Your task to perform on an android device: turn on notifications settings in the gmail app Image 0: 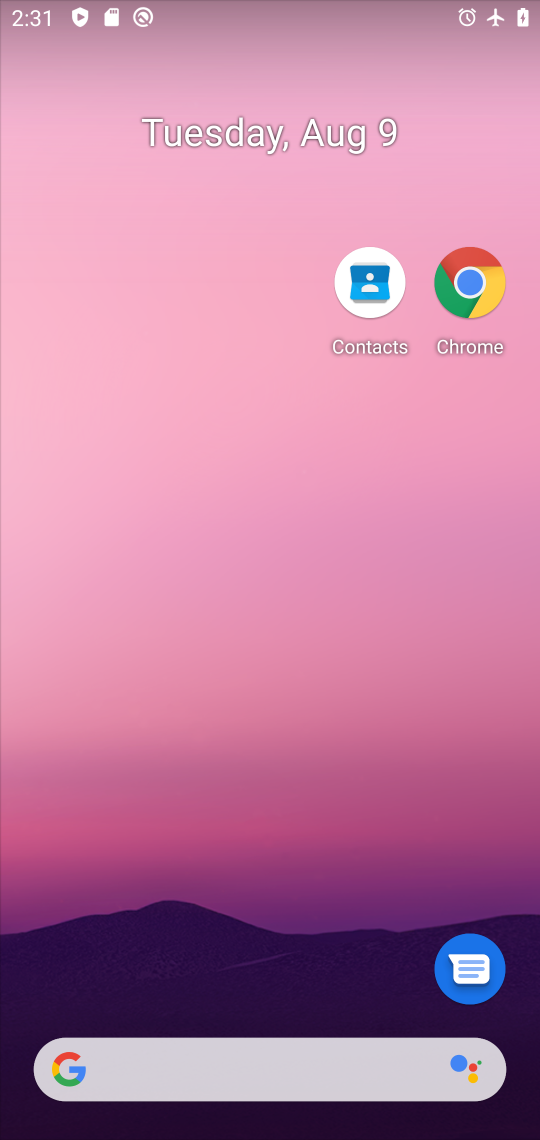
Step 0: drag from (345, 947) to (457, 47)
Your task to perform on an android device: turn on notifications settings in the gmail app Image 1: 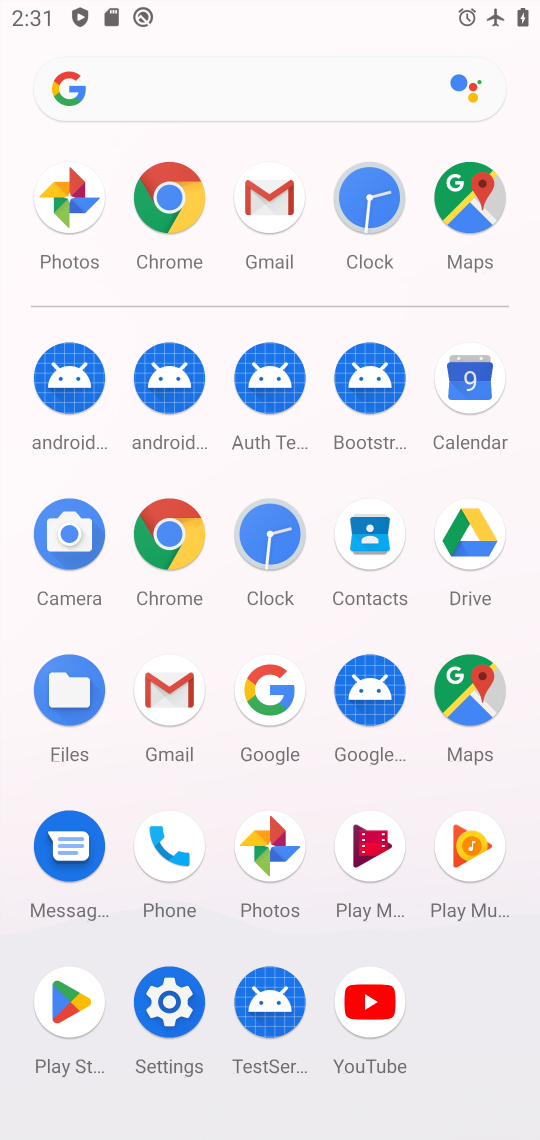
Step 1: click (133, 687)
Your task to perform on an android device: turn on notifications settings in the gmail app Image 2: 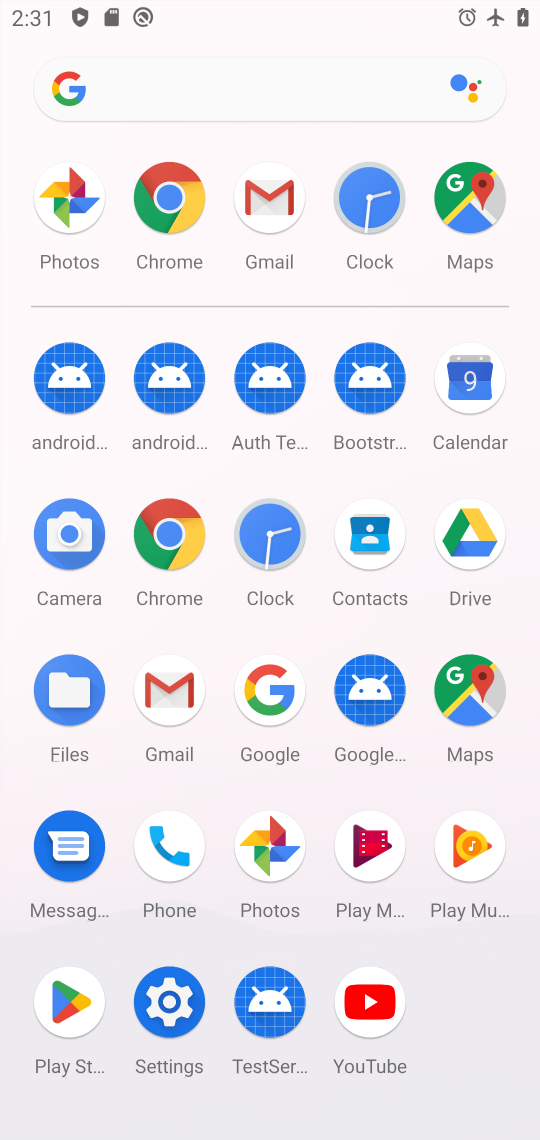
Step 2: click (143, 691)
Your task to perform on an android device: turn on notifications settings in the gmail app Image 3: 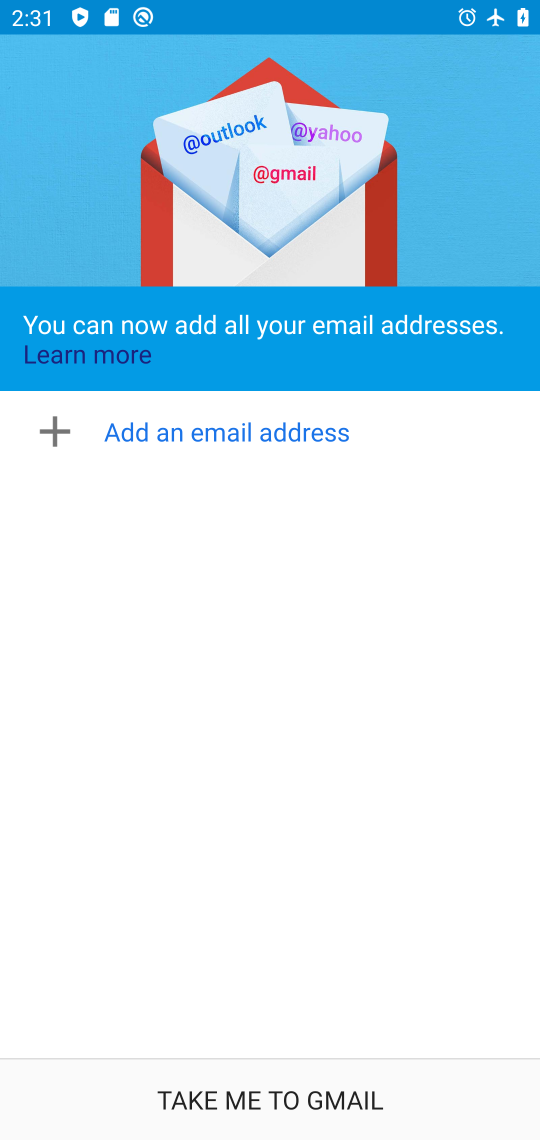
Step 3: press home button
Your task to perform on an android device: turn on notifications settings in the gmail app Image 4: 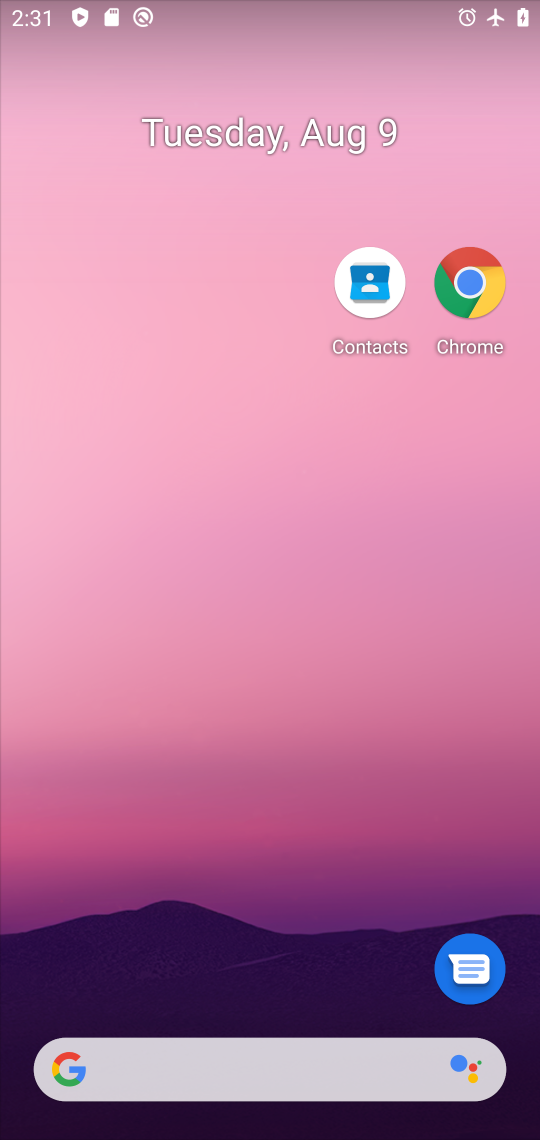
Step 4: drag from (280, 991) to (284, 289)
Your task to perform on an android device: turn on notifications settings in the gmail app Image 5: 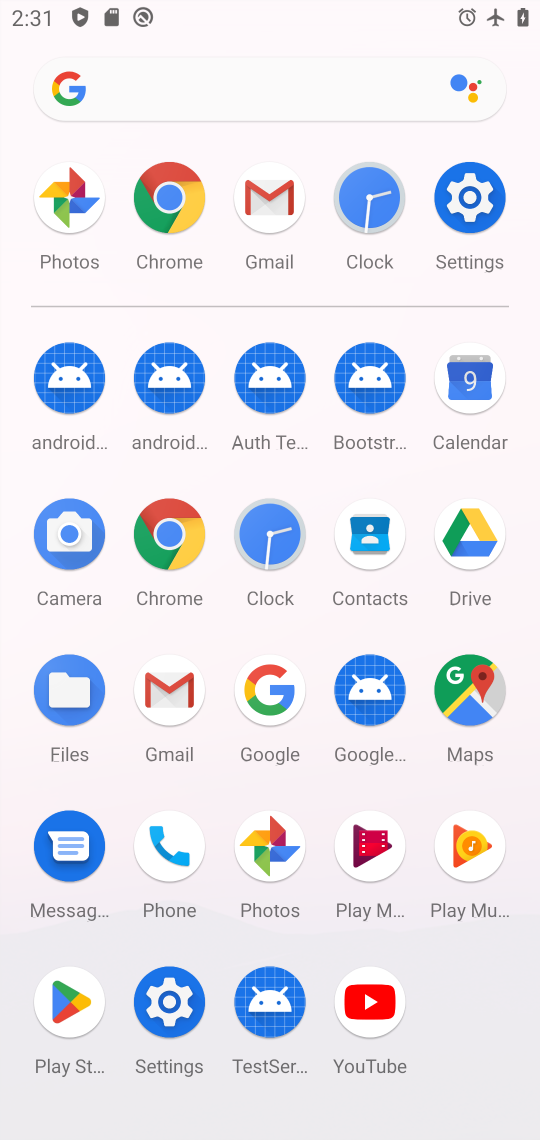
Step 5: click (171, 687)
Your task to perform on an android device: turn on notifications settings in the gmail app Image 6: 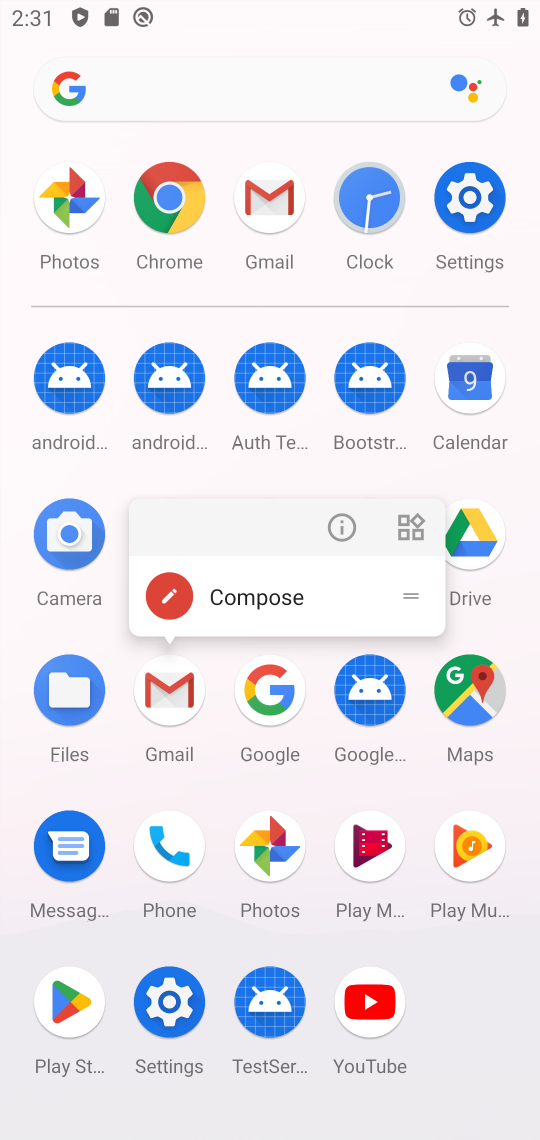
Step 6: click (339, 516)
Your task to perform on an android device: turn on notifications settings in the gmail app Image 7: 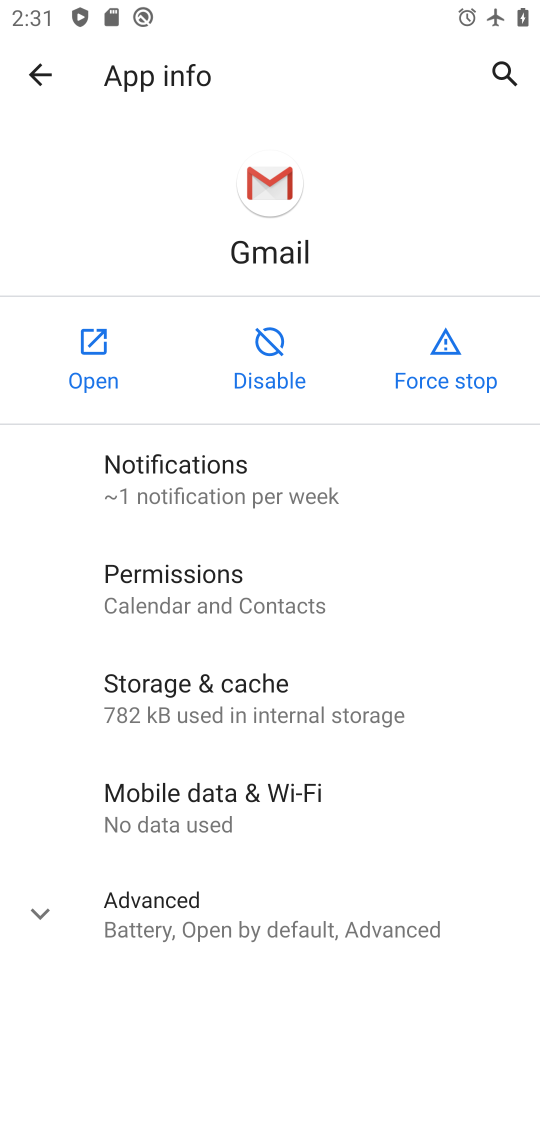
Step 7: click (123, 364)
Your task to perform on an android device: turn on notifications settings in the gmail app Image 8: 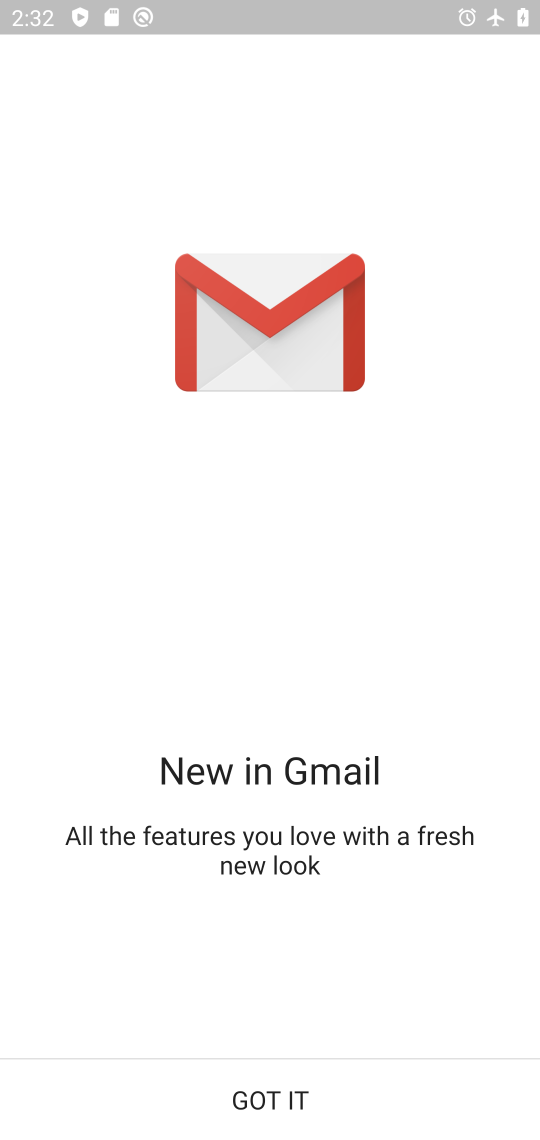
Step 8: click (287, 1074)
Your task to perform on an android device: turn on notifications settings in the gmail app Image 9: 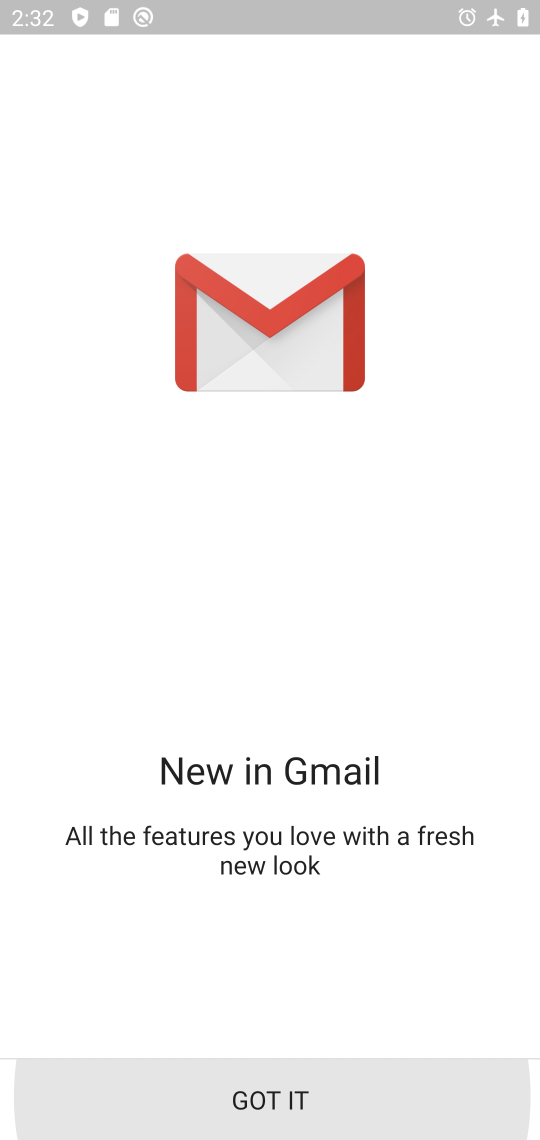
Step 9: click (288, 1090)
Your task to perform on an android device: turn on notifications settings in the gmail app Image 10: 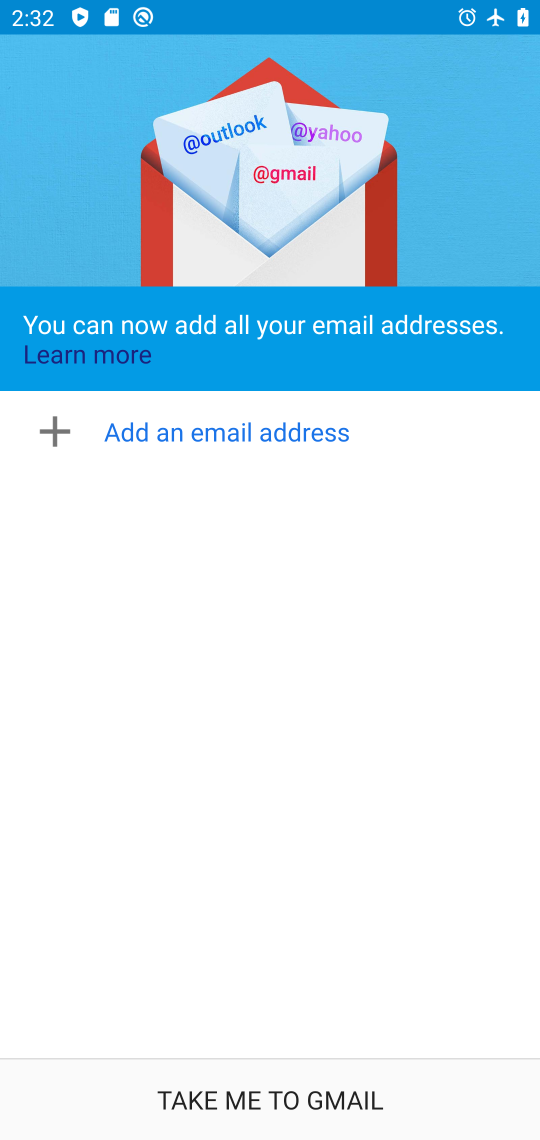
Step 10: click (326, 1083)
Your task to perform on an android device: turn on notifications settings in the gmail app Image 11: 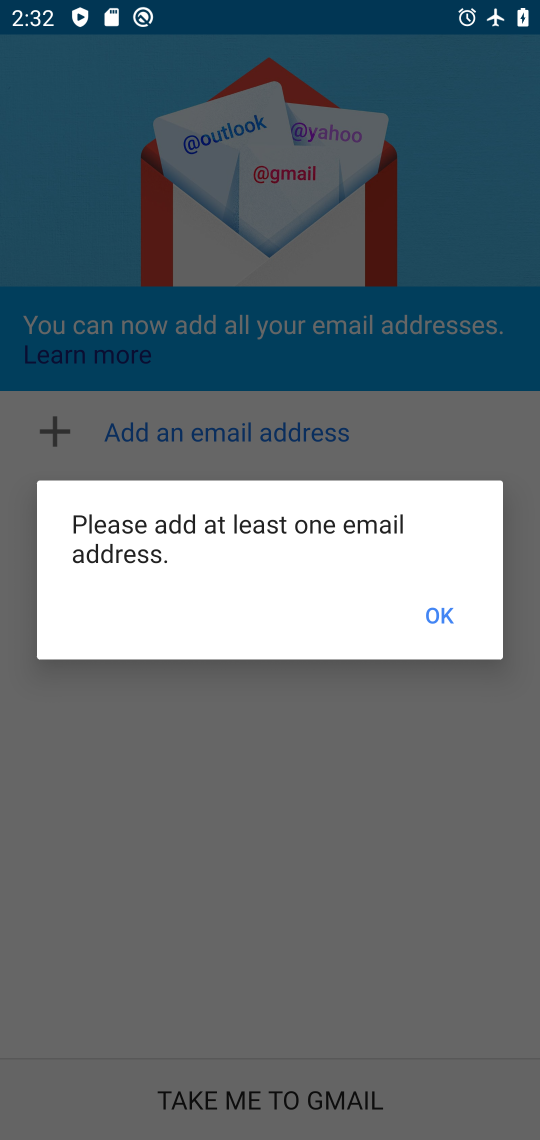
Step 11: task complete